Your task to perform on an android device: set an alarm Image 0: 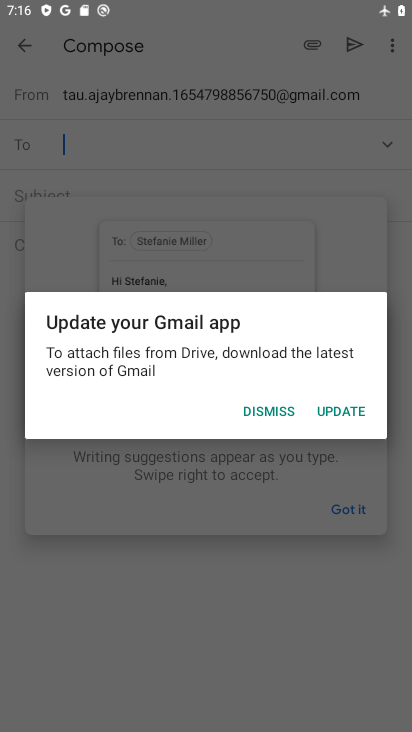
Step 0: press home button
Your task to perform on an android device: set an alarm Image 1: 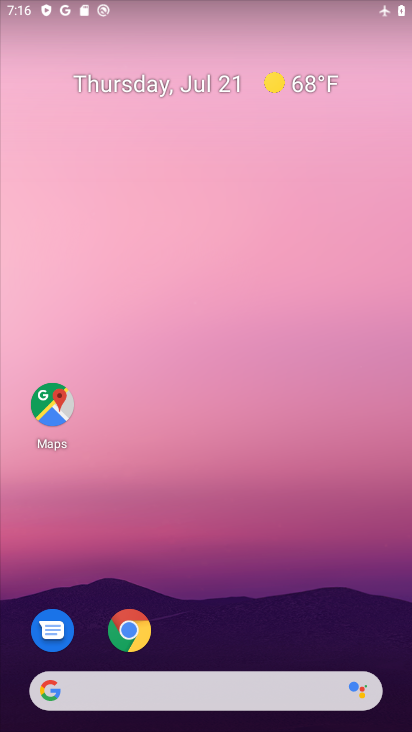
Step 1: drag from (216, 627) to (156, 29)
Your task to perform on an android device: set an alarm Image 2: 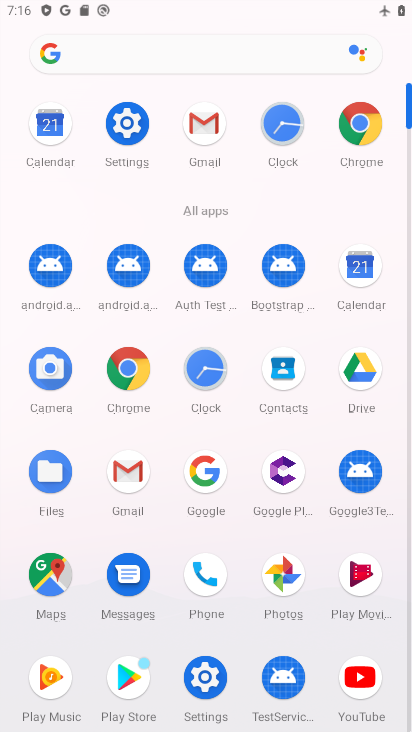
Step 2: click (206, 368)
Your task to perform on an android device: set an alarm Image 3: 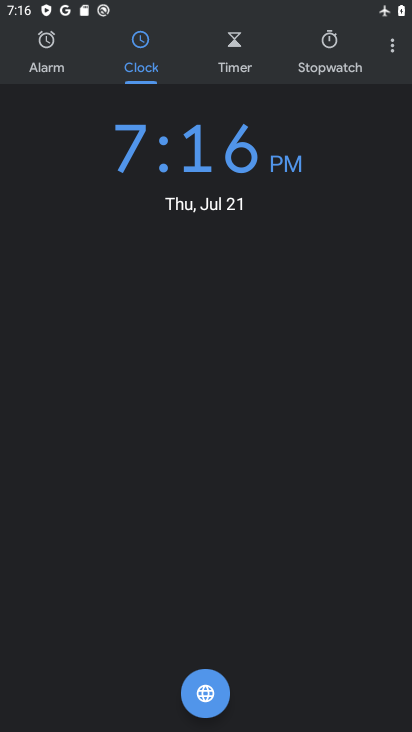
Step 3: click (52, 62)
Your task to perform on an android device: set an alarm Image 4: 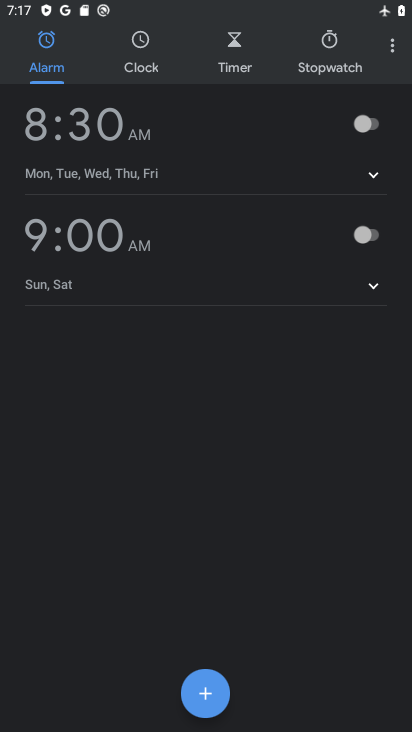
Step 4: click (370, 117)
Your task to perform on an android device: set an alarm Image 5: 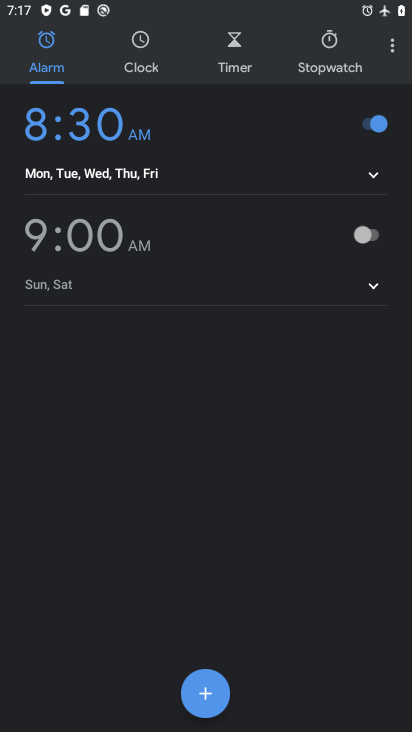
Step 5: task complete